Your task to perform on an android device: open app "Airtel Thanks" Image 0: 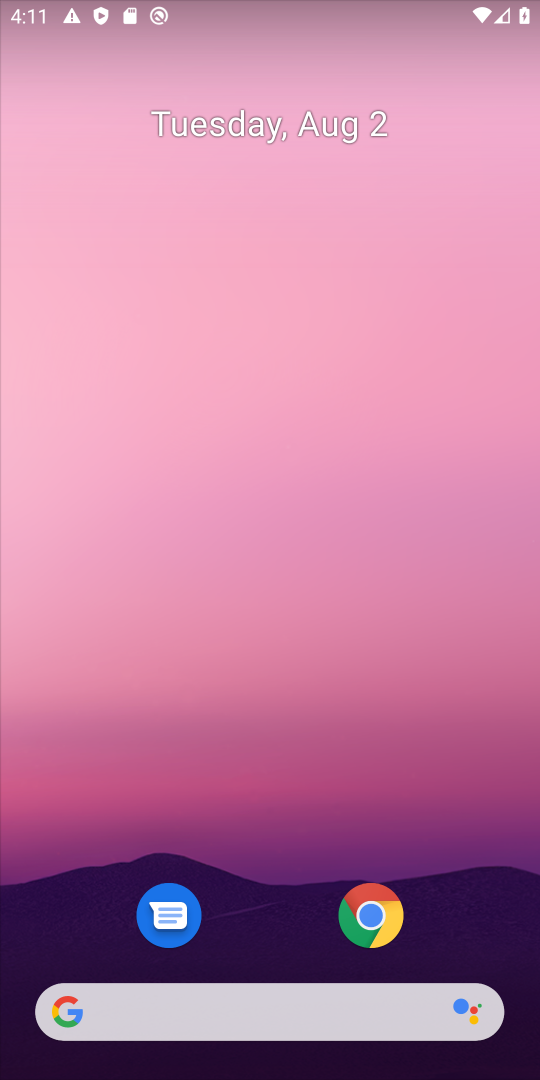
Step 0: drag from (248, 925) to (490, 389)
Your task to perform on an android device: open app "Airtel Thanks" Image 1: 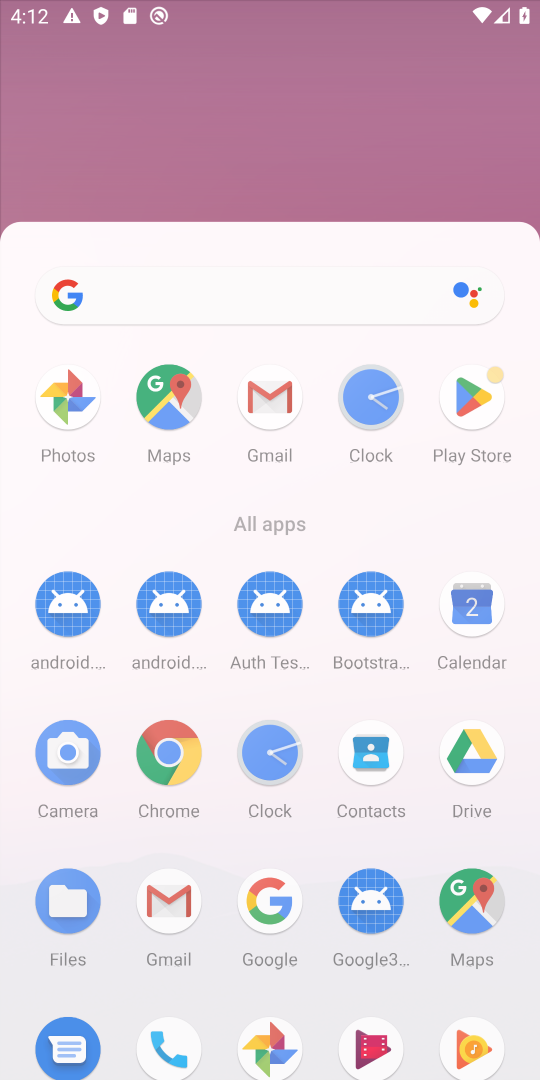
Step 1: click (479, 297)
Your task to perform on an android device: open app "Airtel Thanks" Image 2: 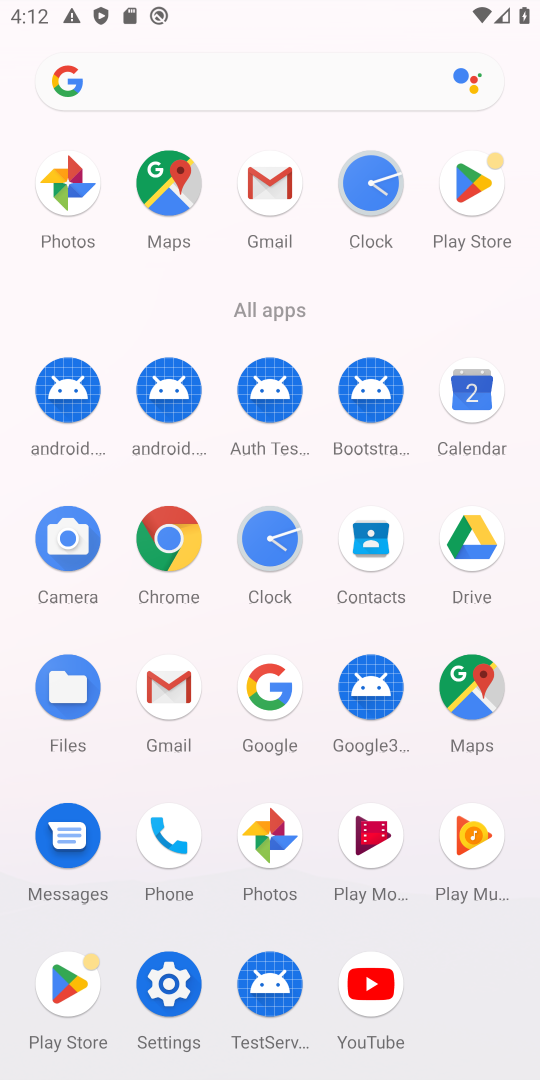
Step 2: click (478, 169)
Your task to perform on an android device: open app "Airtel Thanks" Image 3: 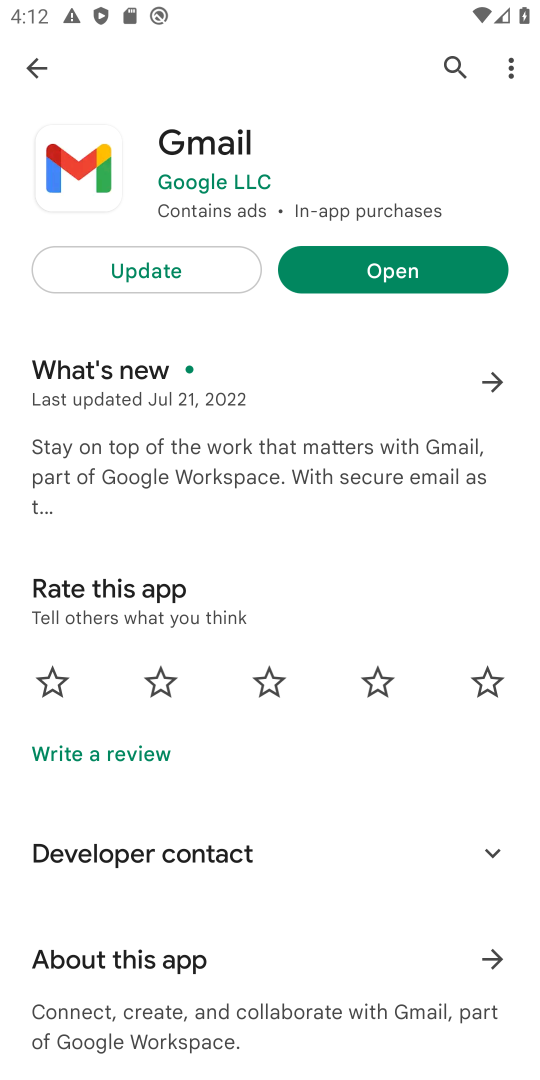
Step 3: click (456, 80)
Your task to perform on an android device: open app "Airtel Thanks" Image 4: 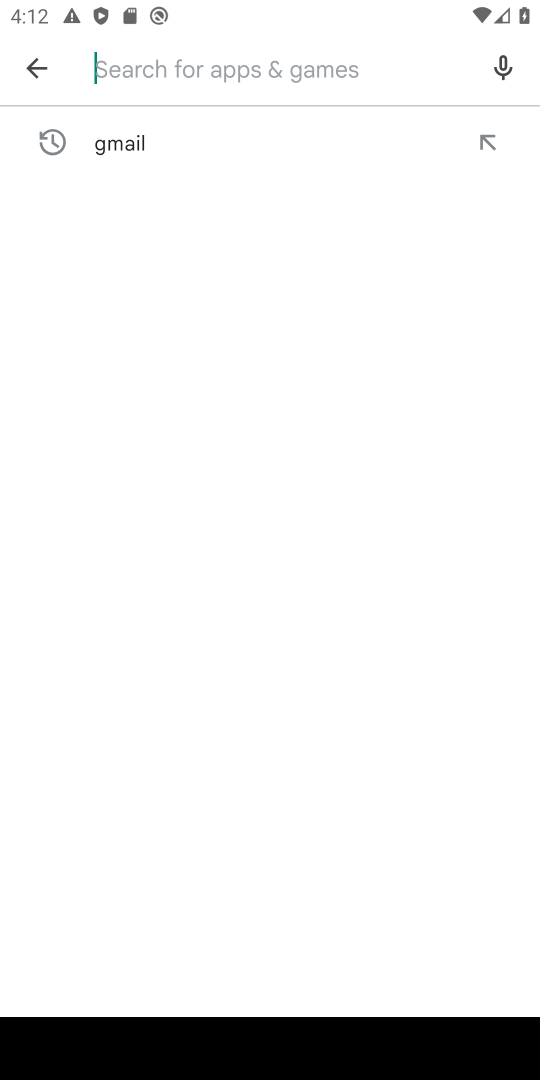
Step 4: type "airtel thanks"
Your task to perform on an android device: open app "Airtel Thanks" Image 5: 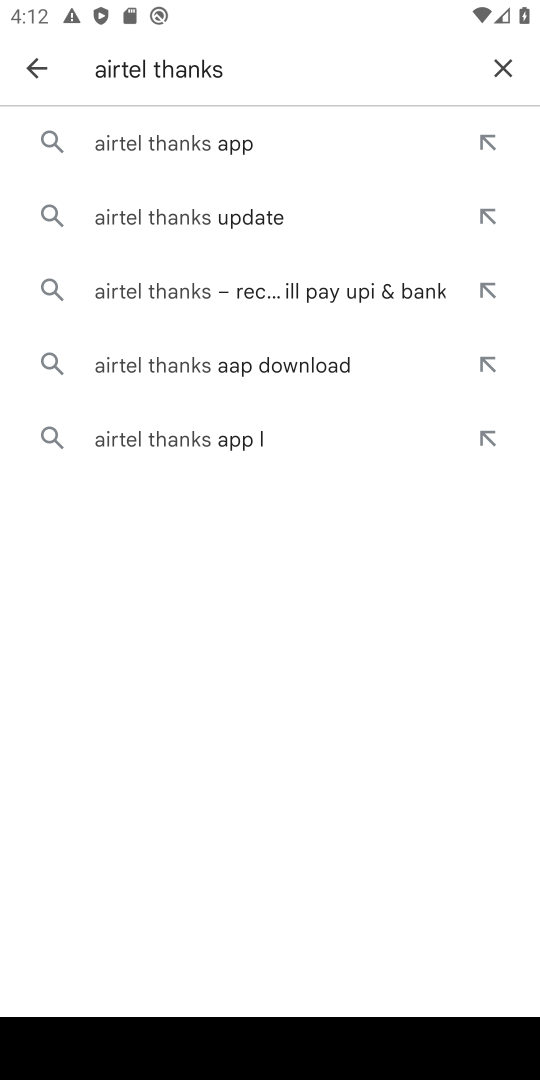
Step 5: click (207, 122)
Your task to perform on an android device: open app "Airtel Thanks" Image 6: 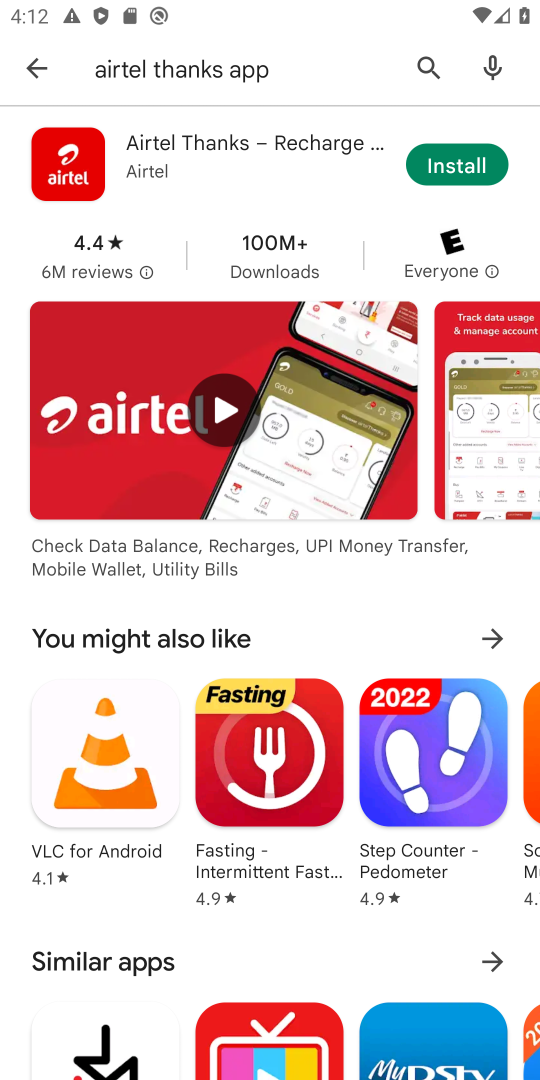
Step 6: click (207, 145)
Your task to perform on an android device: open app "Airtel Thanks" Image 7: 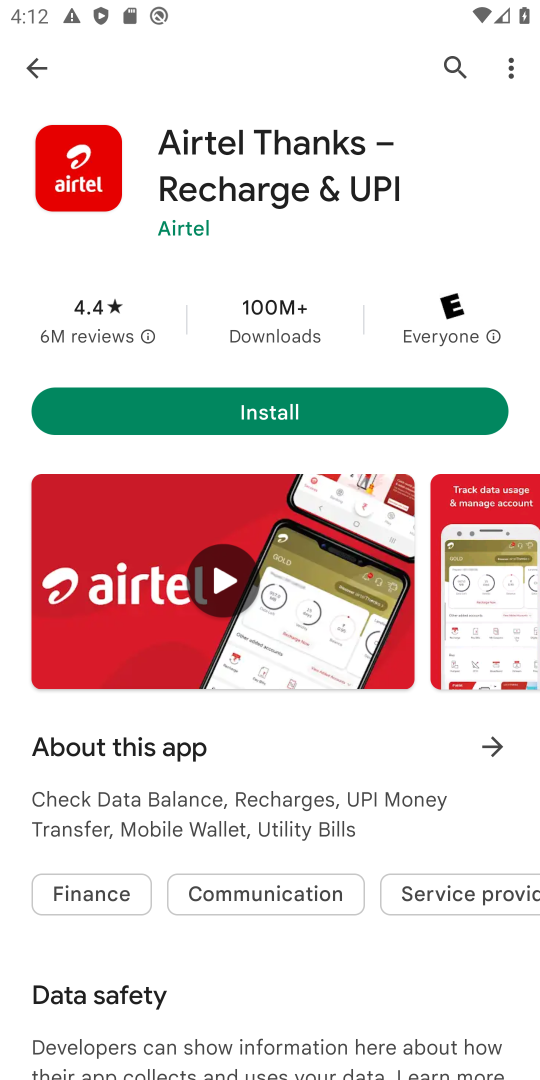
Step 7: task complete